Your task to perform on an android device: Is it going to rain this weekend? Image 0: 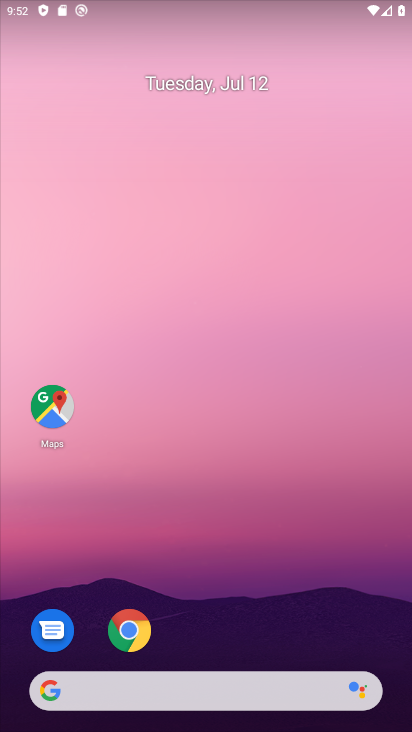
Step 0: click (138, 680)
Your task to perform on an android device: Is it going to rain this weekend? Image 1: 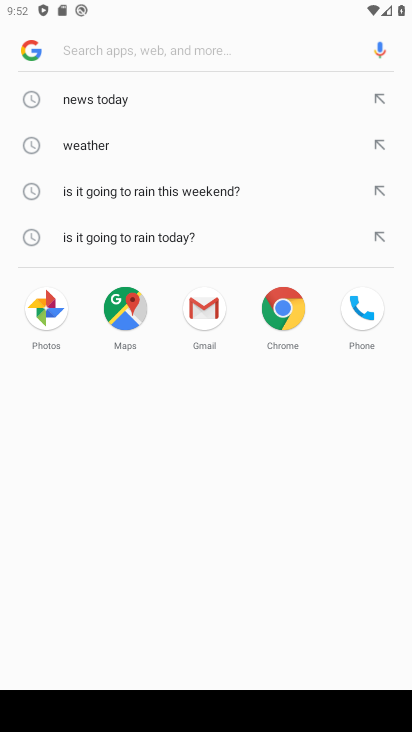
Step 1: click (245, 179)
Your task to perform on an android device: Is it going to rain this weekend? Image 2: 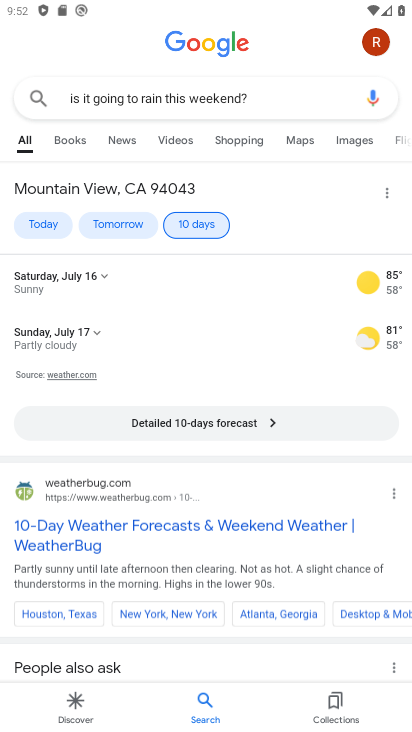
Step 2: task complete